Your task to perform on an android device: turn on showing notifications on the lock screen Image 0: 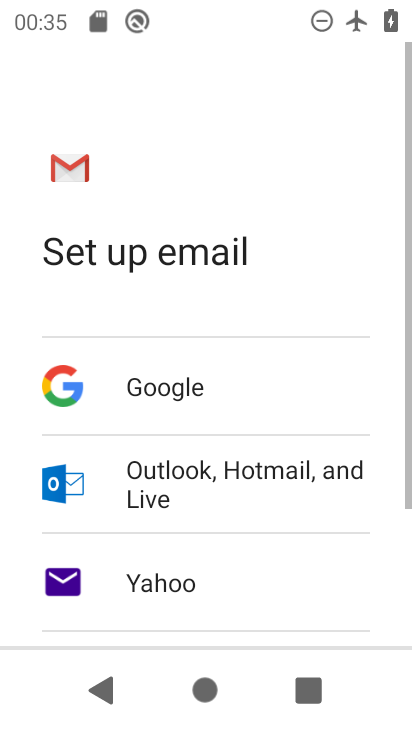
Step 0: drag from (246, 518) to (263, 124)
Your task to perform on an android device: turn on showing notifications on the lock screen Image 1: 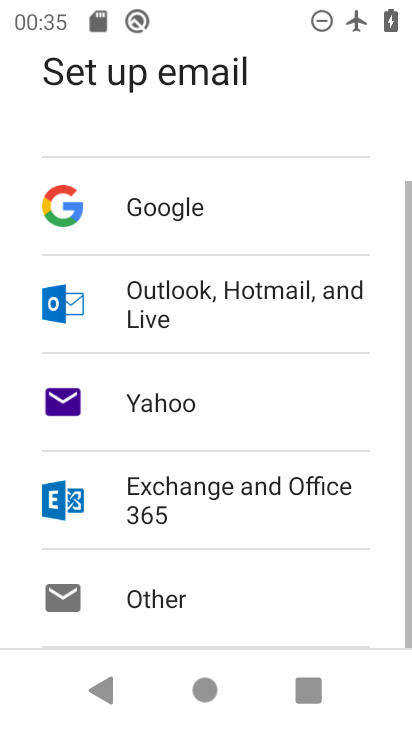
Step 1: press home button
Your task to perform on an android device: turn on showing notifications on the lock screen Image 2: 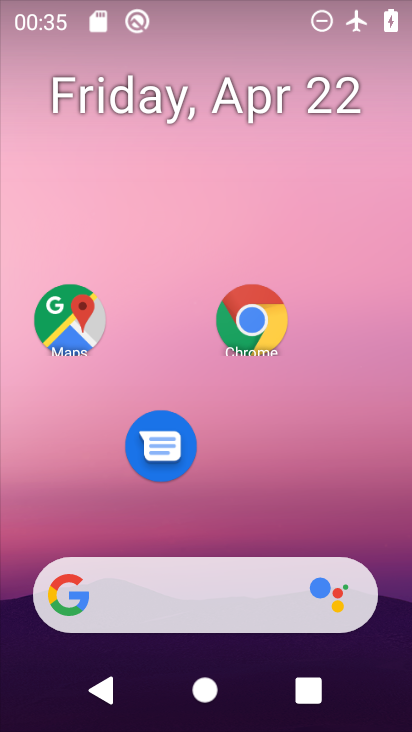
Step 2: click (235, 103)
Your task to perform on an android device: turn on showing notifications on the lock screen Image 3: 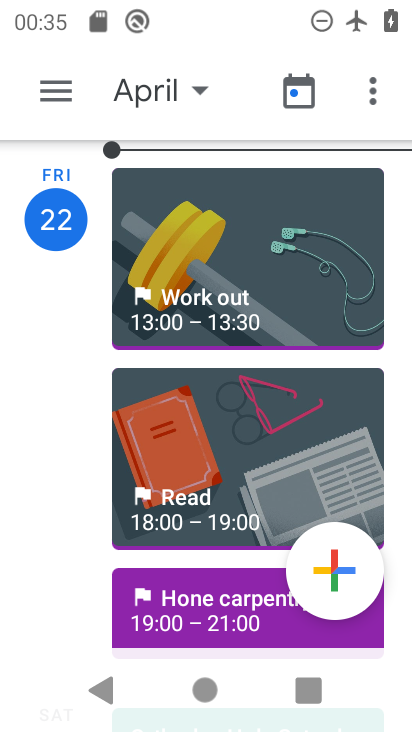
Step 3: drag from (249, 434) to (276, 230)
Your task to perform on an android device: turn on showing notifications on the lock screen Image 4: 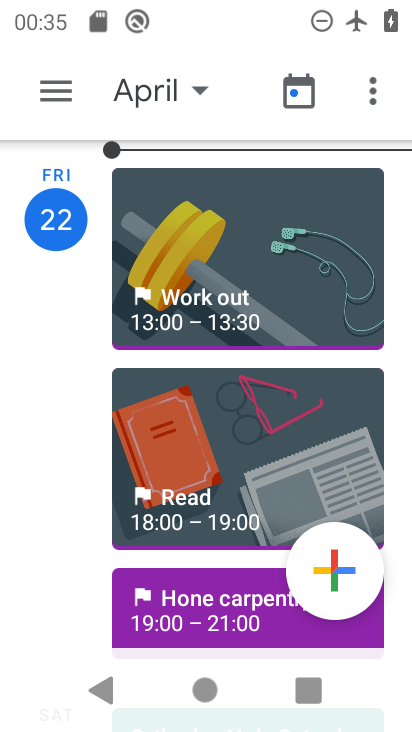
Step 4: drag from (242, 518) to (283, 277)
Your task to perform on an android device: turn on showing notifications on the lock screen Image 5: 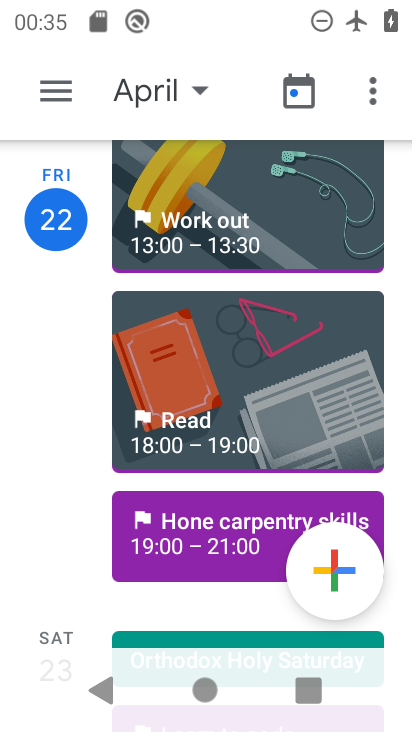
Step 5: press home button
Your task to perform on an android device: turn on showing notifications on the lock screen Image 6: 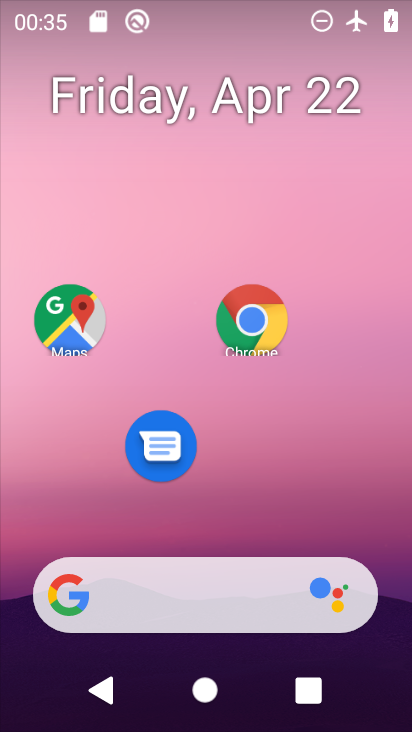
Step 6: drag from (232, 545) to (209, 164)
Your task to perform on an android device: turn on showing notifications on the lock screen Image 7: 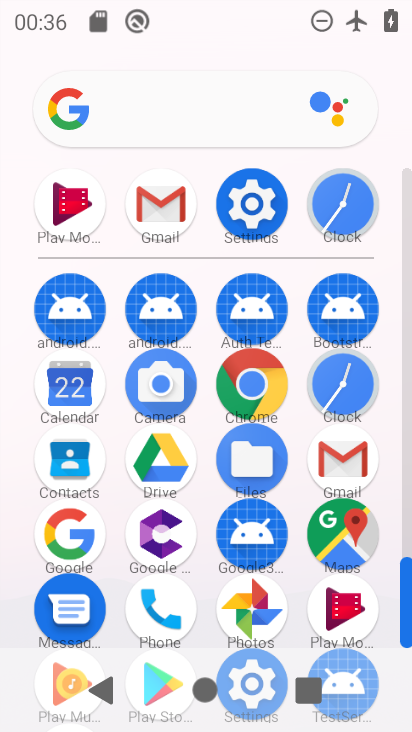
Step 7: click (241, 200)
Your task to perform on an android device: turn on showing notifications on the lock screen Image 8: 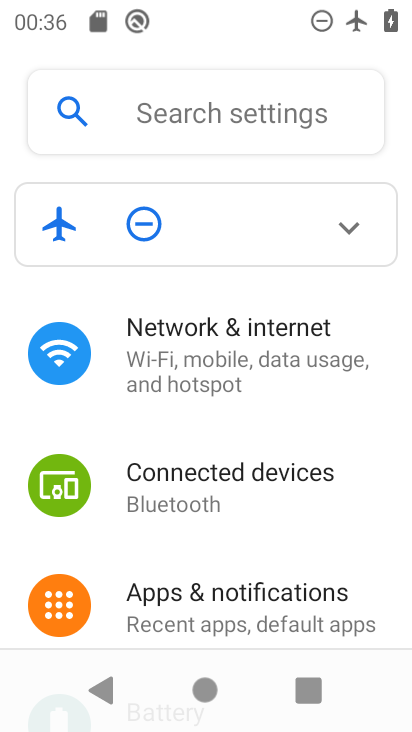
Step 8: drag from (240, 591) to (246, 257)
Your task to perform on an android device: turn on showing notifications on the lock screen Image 9: 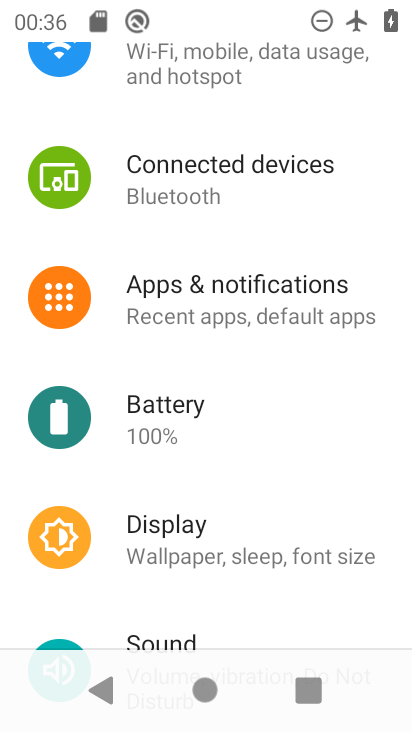
Step 9: click (268, 314)
Your task to perform on an android device: turn on showing notifications on the lock screen Image 10: 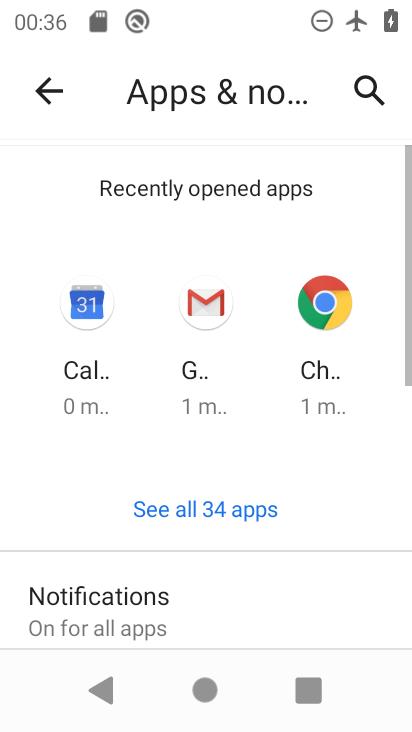
Step 10: drag from (214, 582) to (239, 197)
Your task to perform on an android device: turn on showing notifications on the lock screen Image 11: 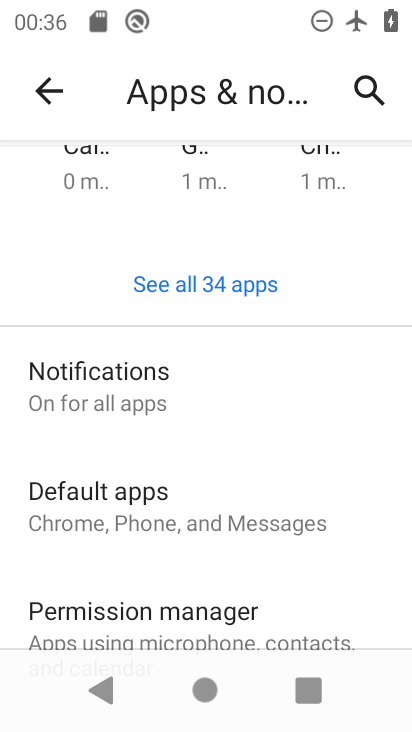
Step 11: click (205, 370)
Your task to perform on an android device: turn on showing notifications on the lock screen Image 12: 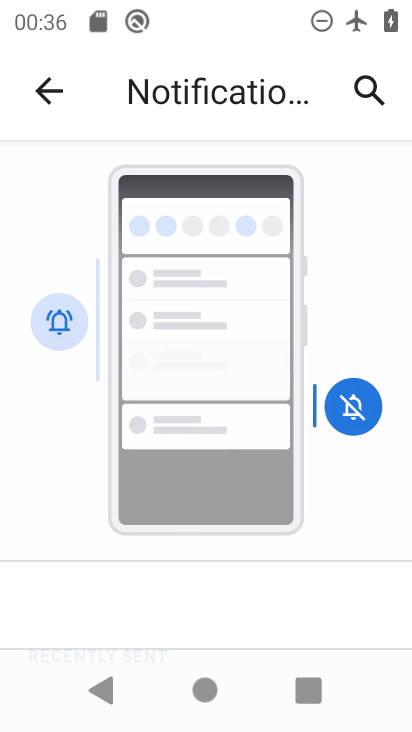
Step 12: drag from (259, 568) to (260, 220)
Your task to perform on an android device: turn on showing notifications on the lock screen Image 13: 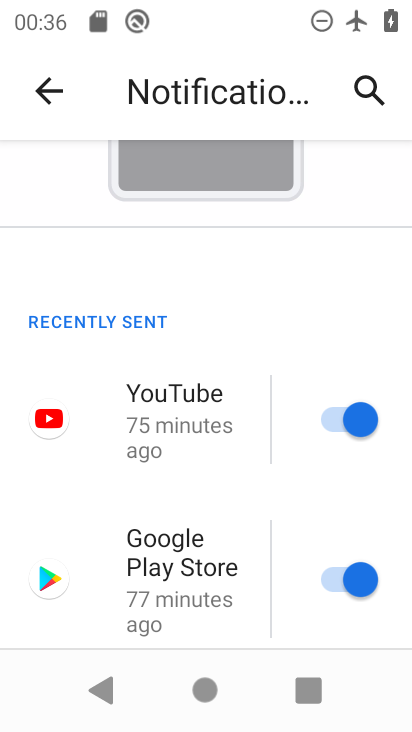
Step 13: drag from (256, 598) to (258, 253)
Your task to perform on an android device: turn on showing notifications on the lock screen Image 14: 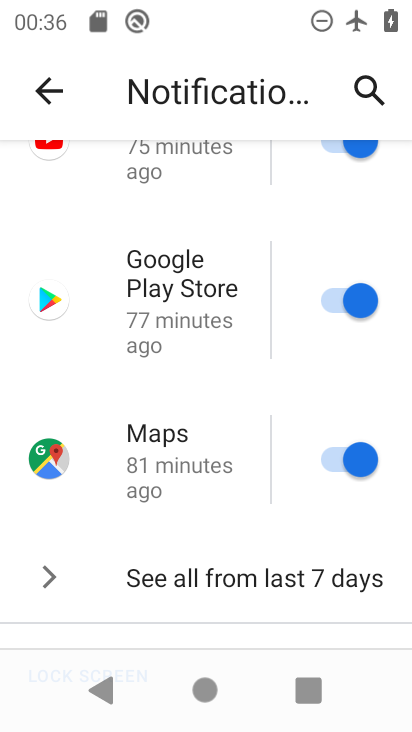
Step 14: drag from (268, 544) to (274, 156)
Your task to perform on an android device: turn on showing notifications on the lock screen Image 15: 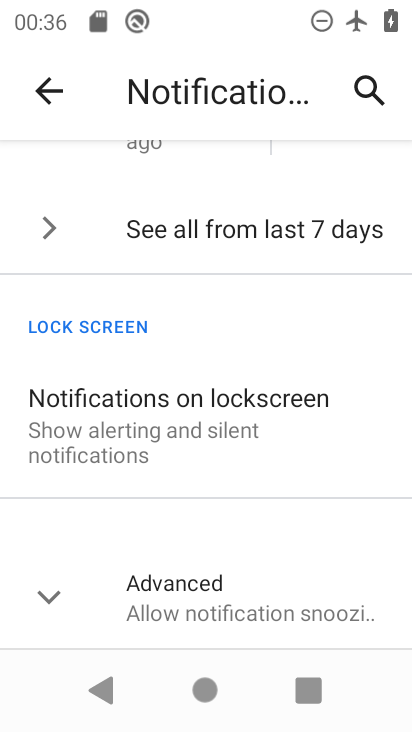
Step 15: drag from (263, 452) to (219, 127)
Your task to perform on an android device: turn on showing notifications on the lock screen Image 16: 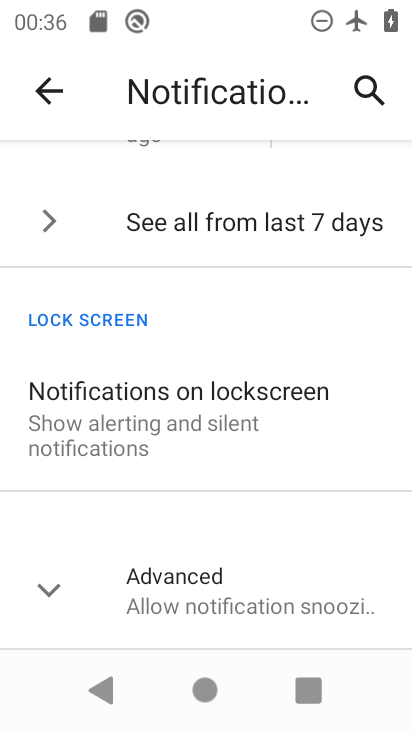
Step 16: click (212, 429)
Your task to perform on an android device: turn on showing notifications on the lock screen Image 17: 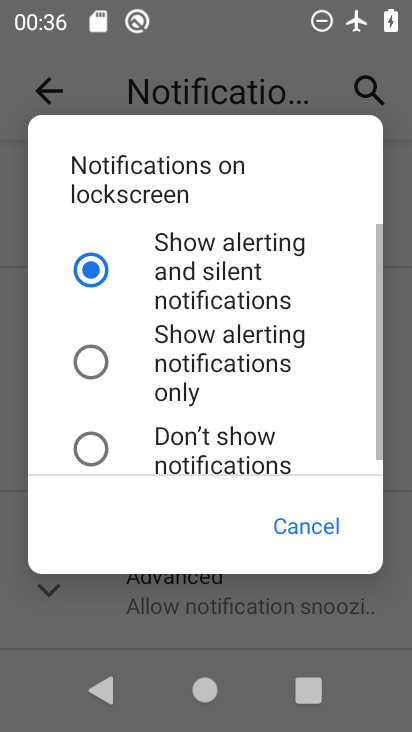
Step 17: click (140, 345)
Your task to perform on an android device: turn on showing notifications on the lock screen Image 18: 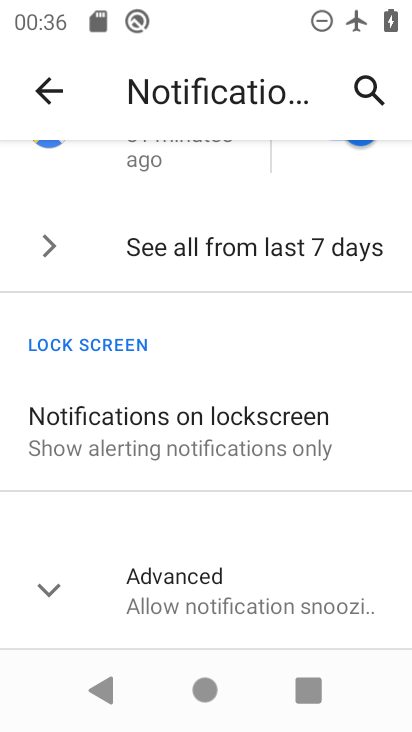
Step 18: task complete